Your task to perform on an android device: Turn on the flashlight Image 0: 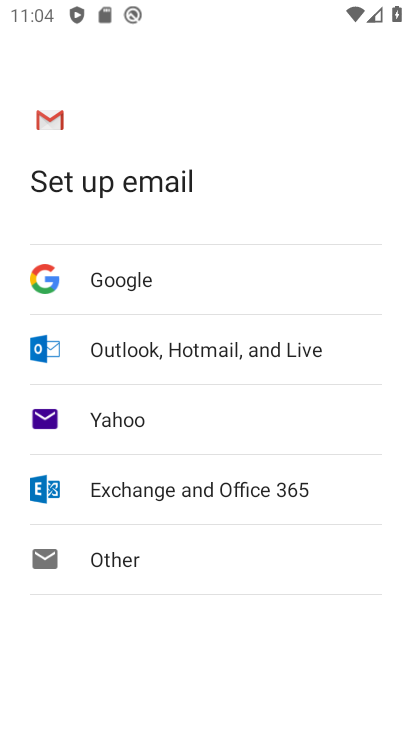
Step 0: press home button
Your task to perform on an android device: Turn on the flashlight Image 1: 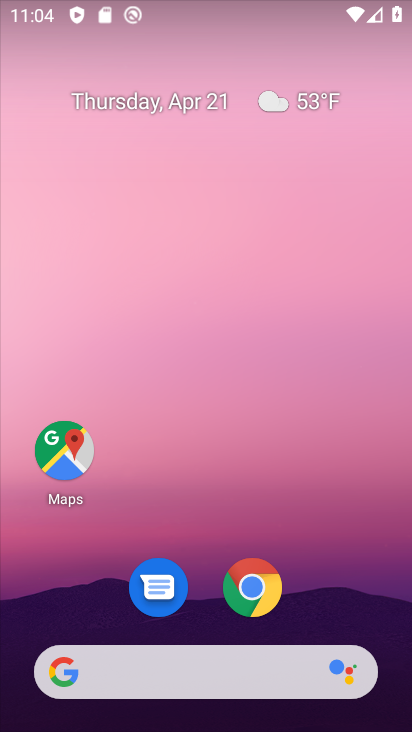
Step 1: drag from (214, 692) to (179, 93)
Your task to perform on an android device: Turn on the flashlight Image 2: 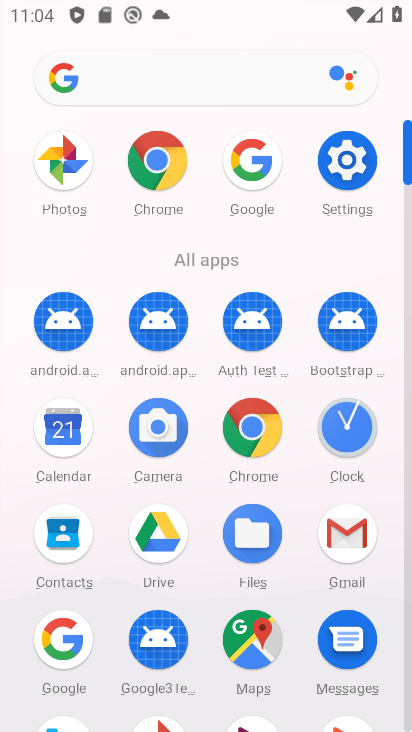
Step 2: click (348, 162)
Your task to perform on an android device: Turn on the flashlight Image 3: 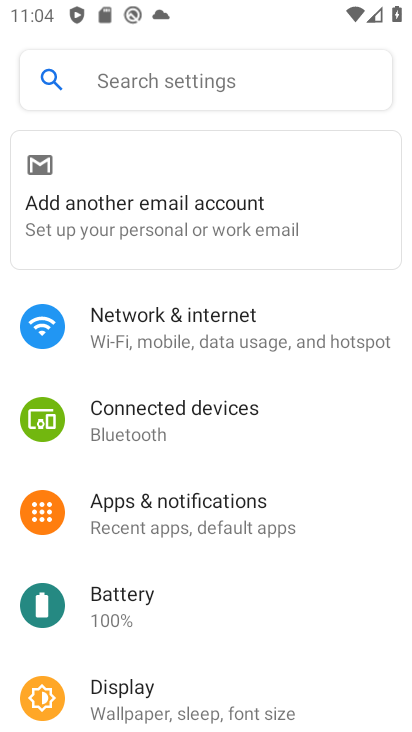
Step 3: task complete